Your task to perform on an android device: Open Google Image 0: 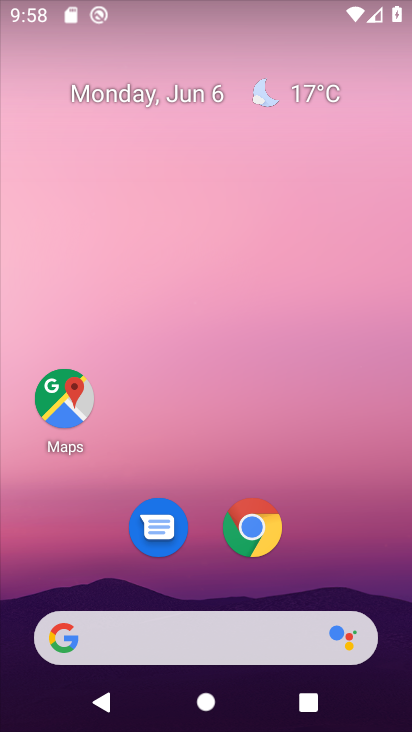
Step 0: click (193, 641)
Your task to perform on an android device: Open Google Image 1: 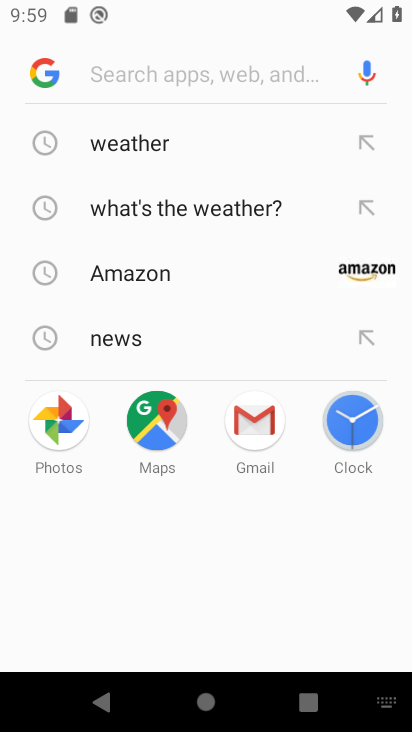
Step 1: click (42, 79)
Your task to perform on an android device: Open Google Image 2: 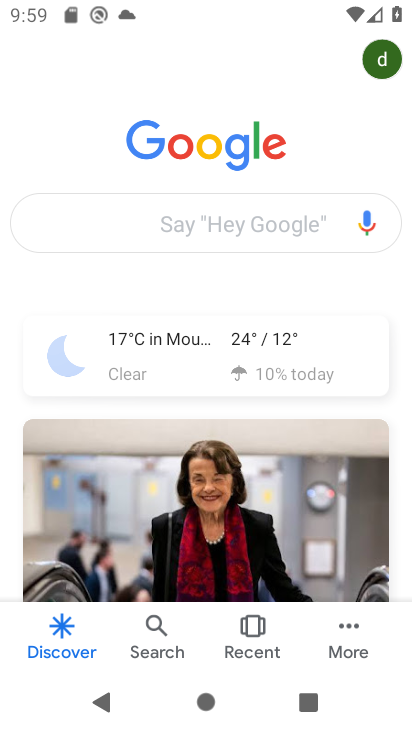
Step 2: task complete